Your task to perform on an android device: read, delete, or share a saved page in the chrome app Image 0: 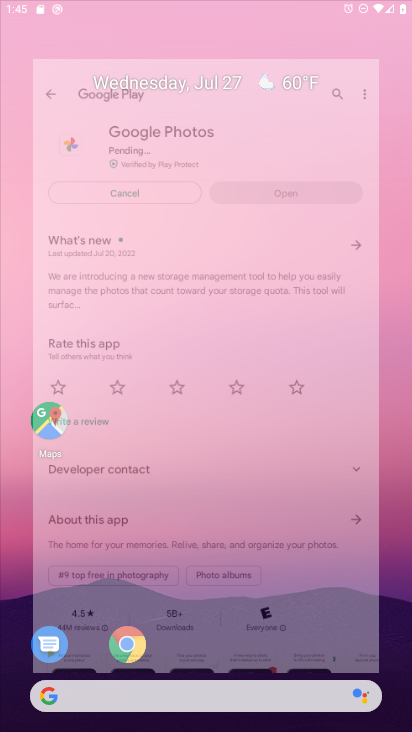
Step 0: drag from (193, 598) to (232, 34)
Your task to perform on an android device: read, delete, or share a saved page in the chrome app Image 1: 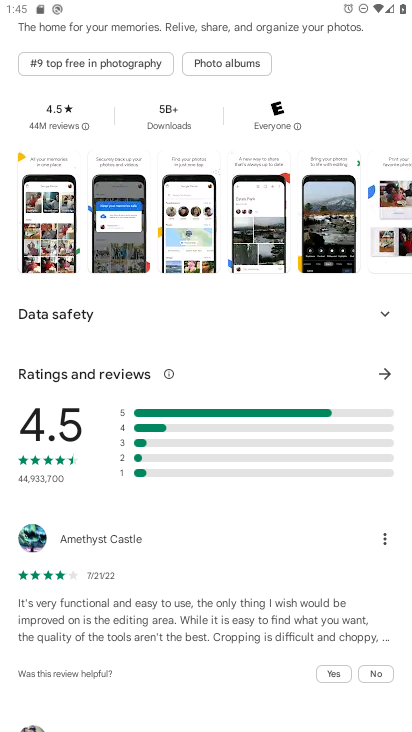
Step 1: drag from (227, 510) to (283, 211)
Your task to perform on an android device: read, delete, or share a saved page in the chrome app Image 2: 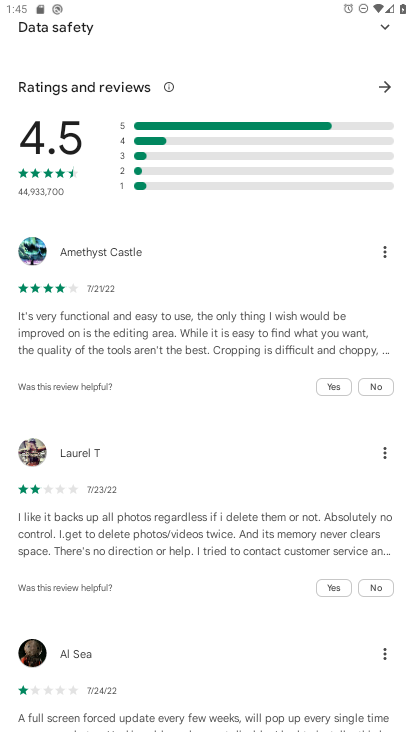
Step 2: drag from (290, 192) to (298, 689)
Your task to perform on an android device: read, delete, or share a saved page in the chrome app Image 3: 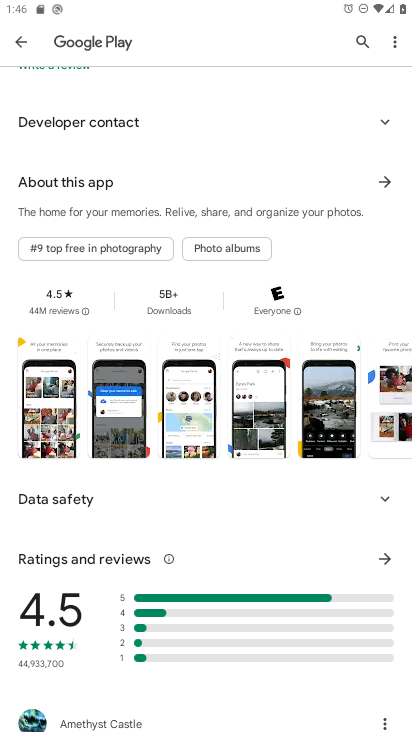
Step 3: drag from (219, 172) to (200, 616)
Your task to perform on an android device: read, delete, or share a saved page in the chrome app Image 4: 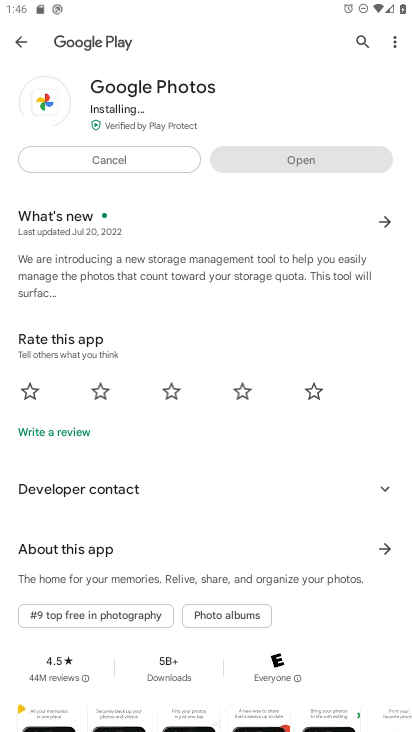
Step 4: drag from (203, 234) to (297, 690)
Your task to perform on an android device: read, delete, or share a saved page in the chrome app Image 5: 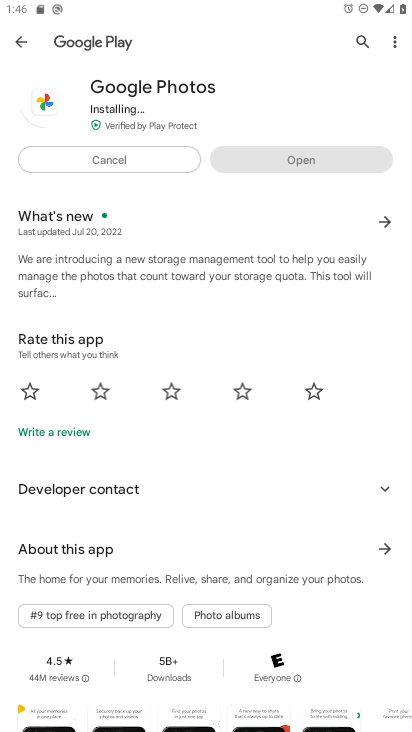
Step 5: drag from (242, 621) to (262, 321)
Your task to perform on an android device: read, delete, or share a saved page in the chrome app Image 6: 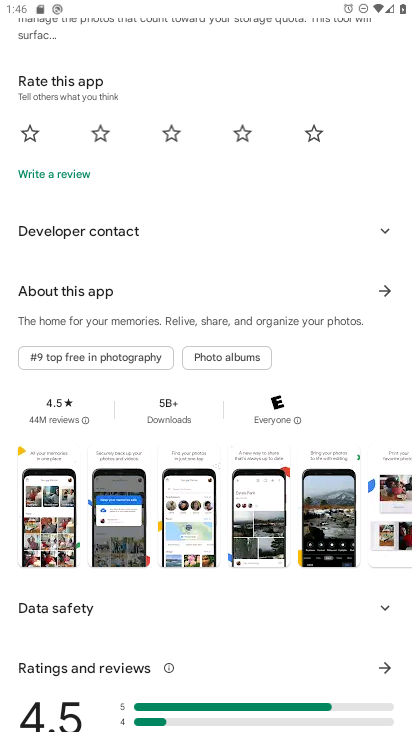
Step 6: press home button
Your task to perform on an android device: read, delete, or share a saved page in the chrome app Image 7: 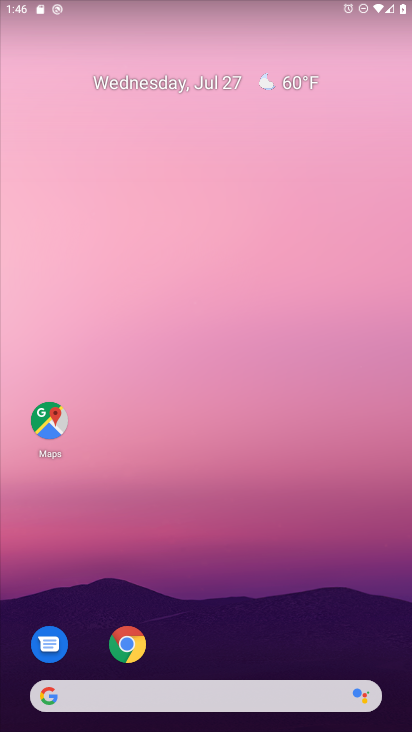
Step 7: drag from (210, 621) to (389, 134)
Your task to perform on an android device: read, delete, or share a saved page in the chrome app Image 8: 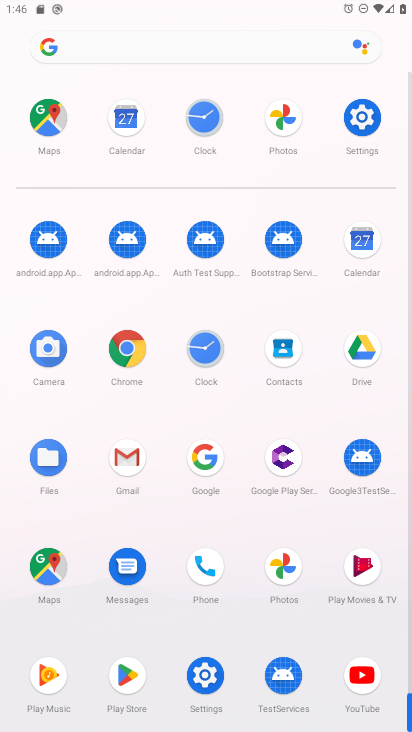
Step 8: click (126, 348)
Your task to perform on an android device: read, delete, or share a saved page in the chrome app Image 9: 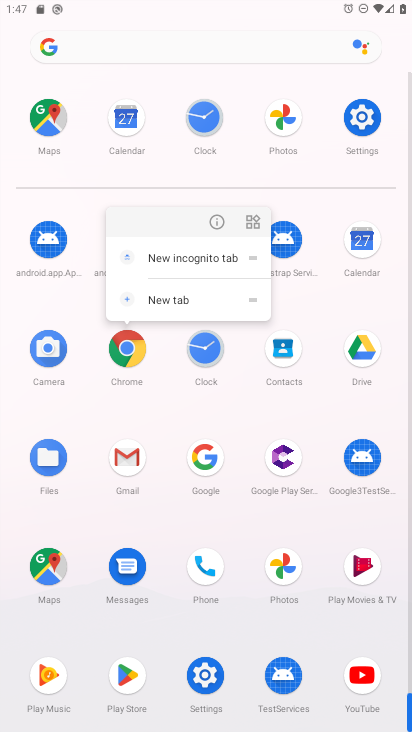
Step 9: click (215, 227)
Your task to perform on an android device: read, delete, or share a saved page in the chrome app Image 10: 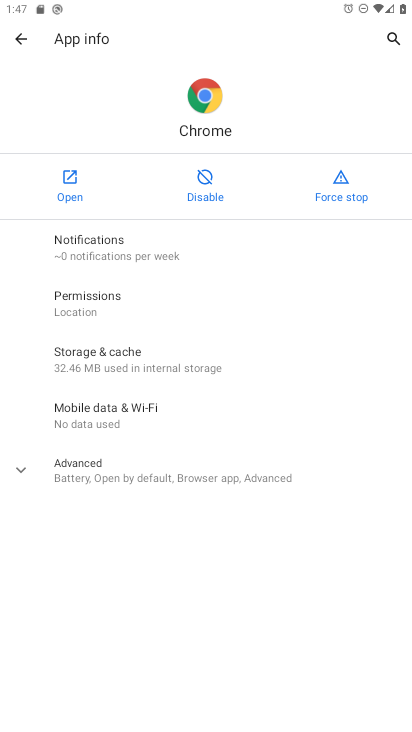
Step 10: click (60, 174)
Your task to perform on an android device: read, delete, or share a saved page in the chrome app Image 11: 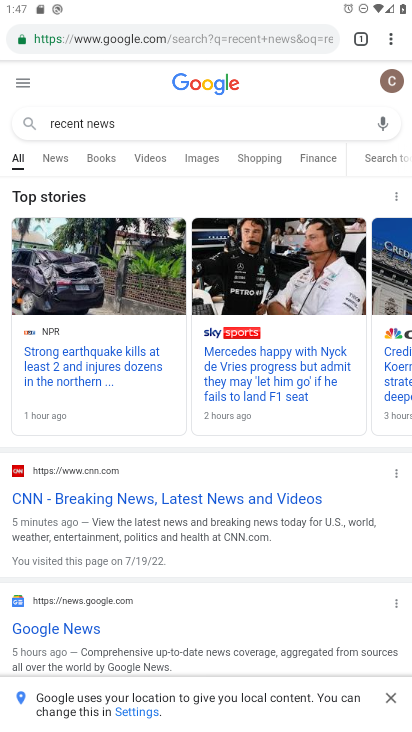
Step 11: drag from (392, 35) to (268, 196)
Your task to perform on an android device: read, delete, or share a saved page in the chrome app Image 12: 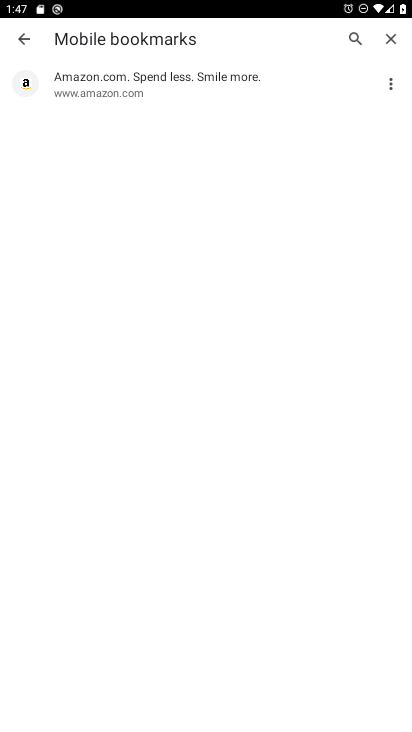
Step 12: click (158, 85)
Your task to perform on an android device: read, delete, or share a saved page in the chrome app Image 13: 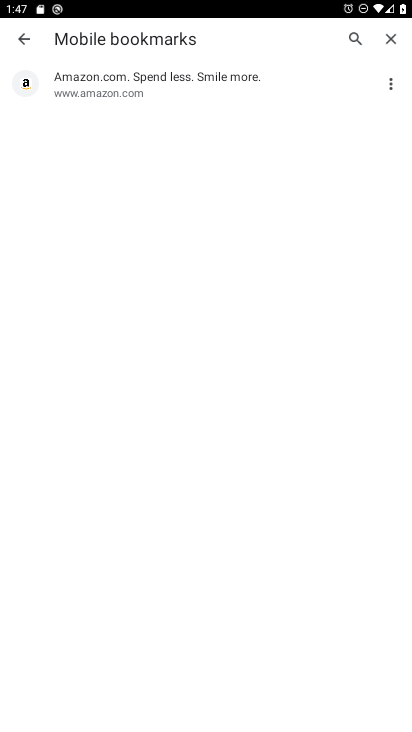
Step 13: task complete